Your task to perform on an android device: make emails show in primary in the gmail app Image 0: 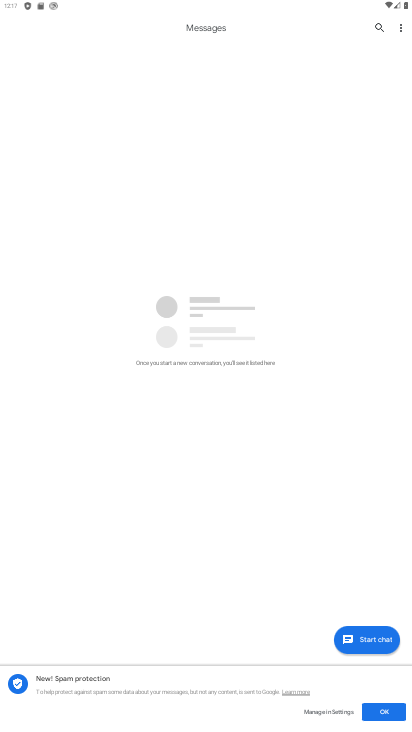
Step 0: press home button
Your task to perform on an android device: make emails show in primary in the gmail app Image 1: 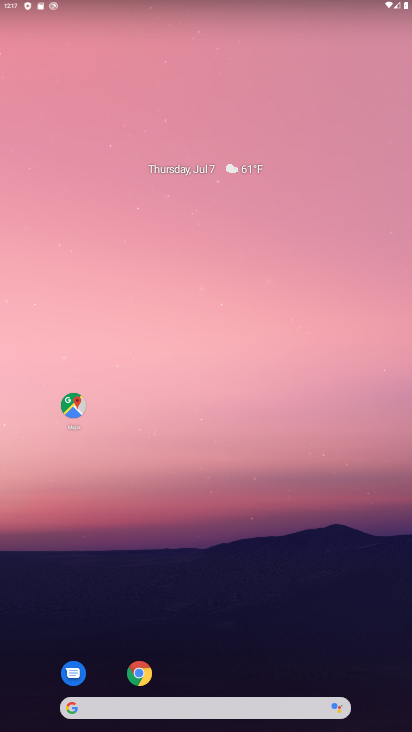
Step 1: drag from (209, 648) to (88, 100)
Your task to perform on an android device: make emails show in primary in the gmail app Image 2: 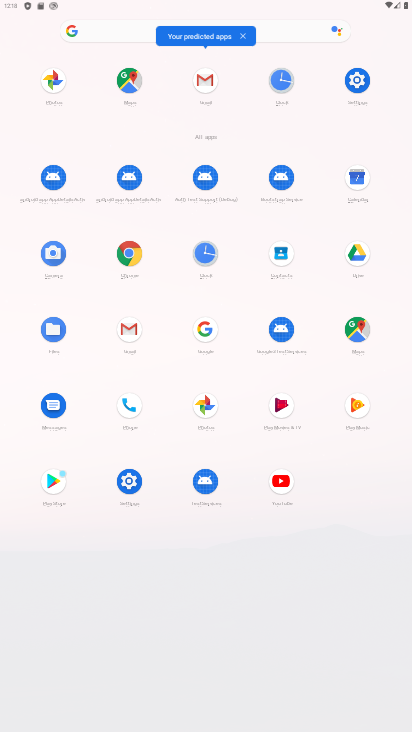
Step 2: click (213, 87)
Your task to perform on an android device: make emails show in primary in the gmail app Image 3: 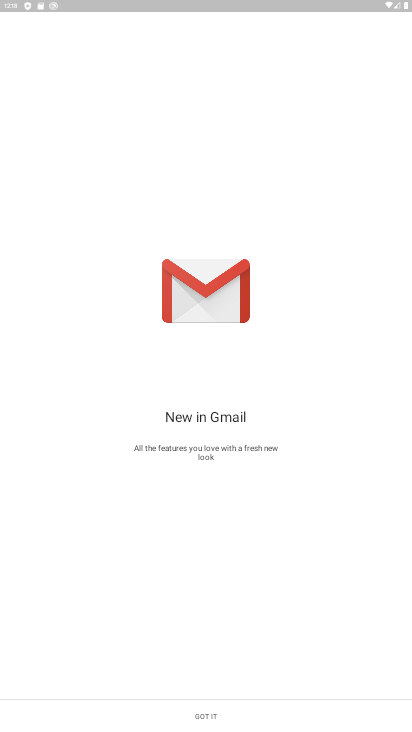
Step 3: click (207, 717)
Your task to perform on an android device: make emails show in primary in the gmail app Image 4: 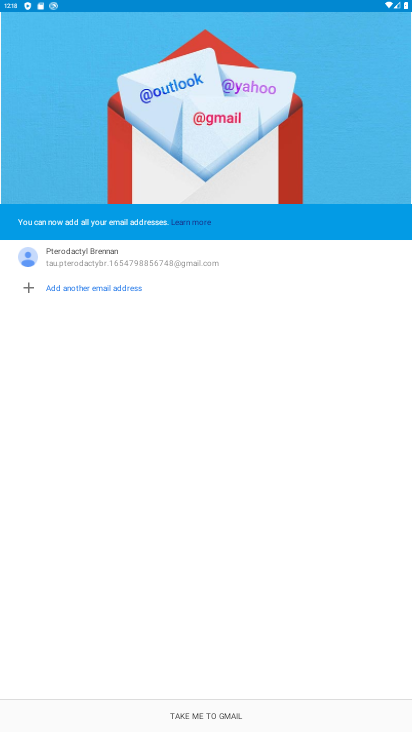
Step 4: click (206, 705)
Your task to perform on an android device: make emails show in primary in the gmail app Image 5: 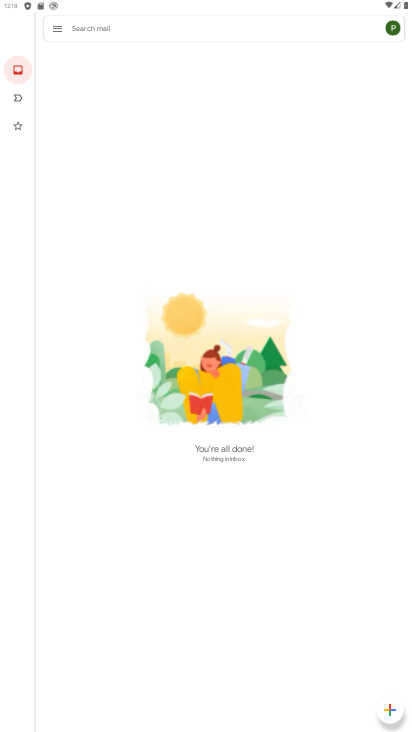
Step 5: click (54, 32)
Your task to perform on an android device: make emails show in primary in the gmail app Image 6: 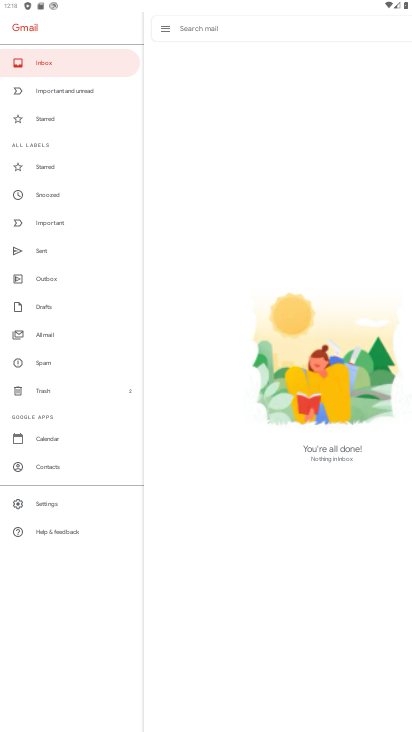
Step 6: click (49, 471)
Your task to perform on an android device: make emails show in primary in the gmail app Image 7: 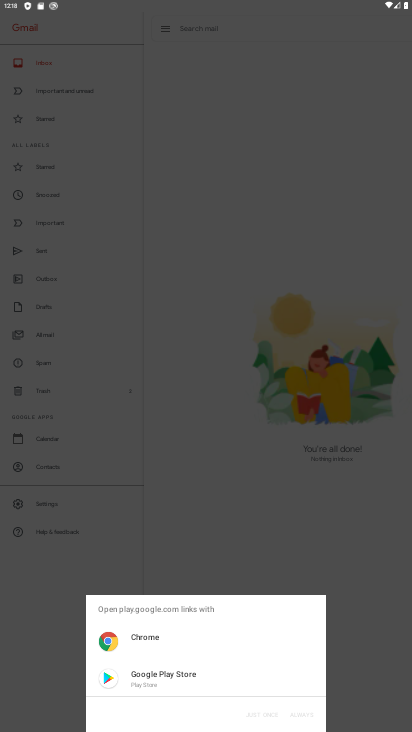
Step 7: click (364, 440)
Your task to perform on an android device: make emails show in primary in the gmail app Image 8: 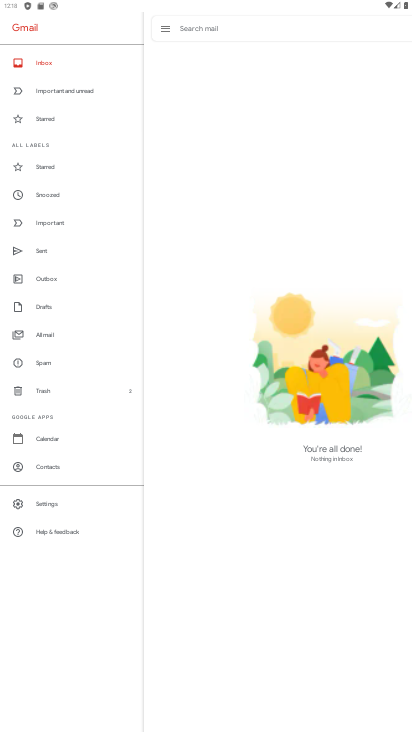
Step 8: click (52, 510)
Your task to perform on an android device: make emails show in primary in the gmail app Image 9: 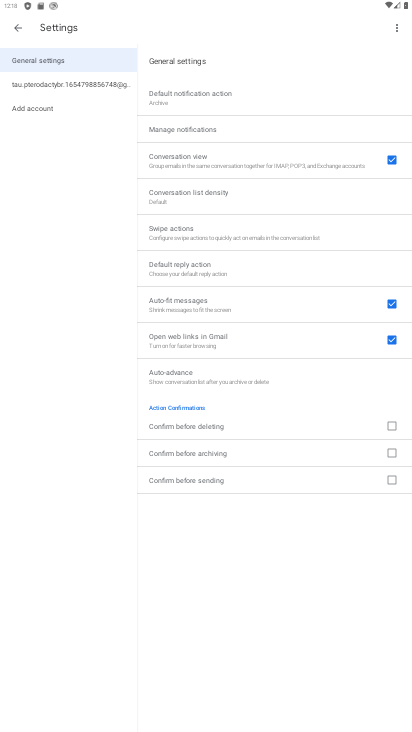
Step 9: task complete